Your task to perform on an android device: Search for Mexican restaurants on Maps Image 0: 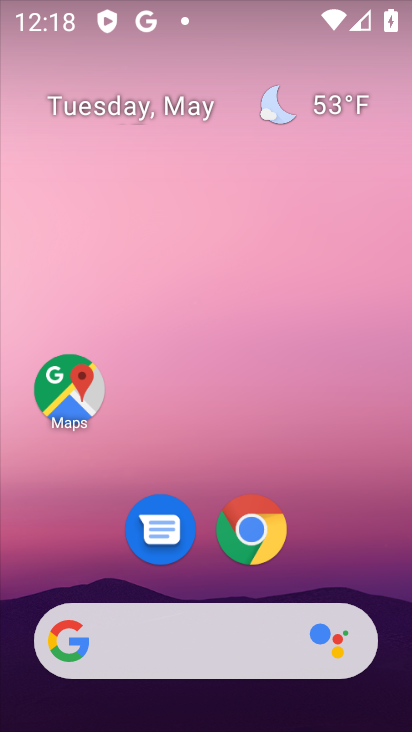
Step 0: drag from (240, 715) to (242, 292)
Your task to perform on an android device: Search for Mexican restaurants on Maps Image 1: 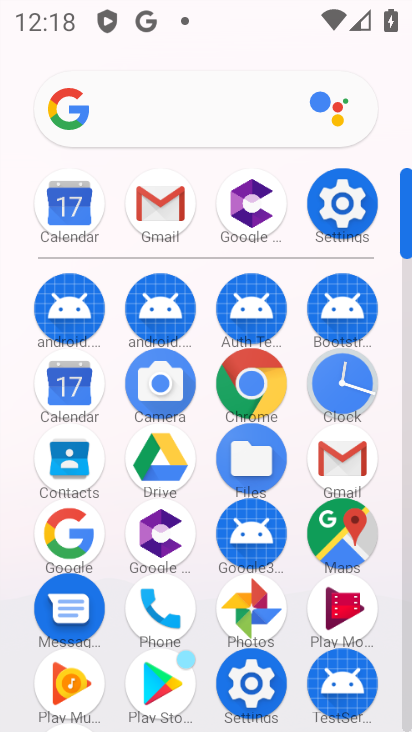
Step 1: click (327, 519)
Your task to perform on an android device: Search for Mexican restaurants on Maps Image 2: 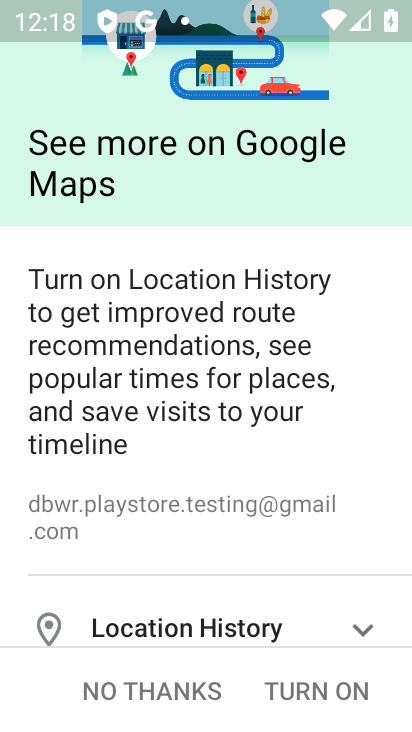
Step 2: click (171, 689)
Your task to perform on an android device: Search for Mexican restaurants on Maps Image 3: 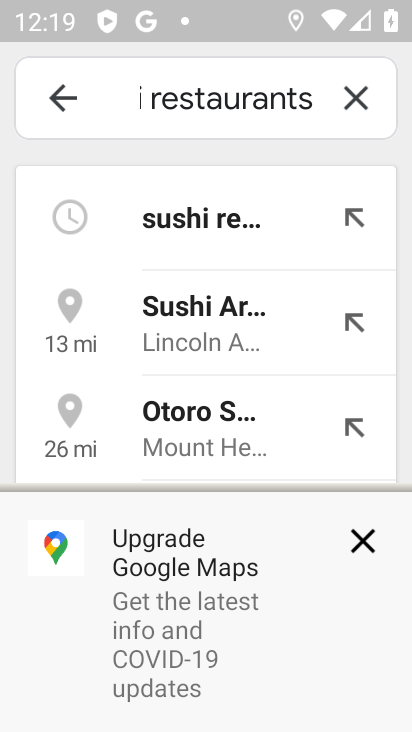
Step 3: click (349, 93)
Your task to perform on an android device: Search for Mexican restaurants on Maps Image 4: 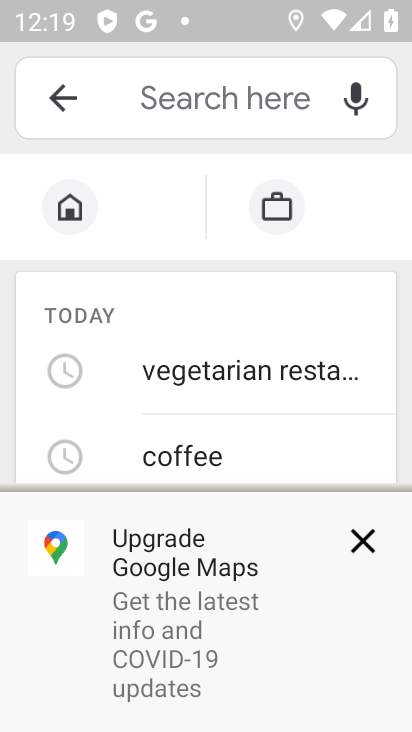
Step 4: click (161, 96)
Your task to perform on an android device: Search for Mexican restaurants on Maps Image 5: 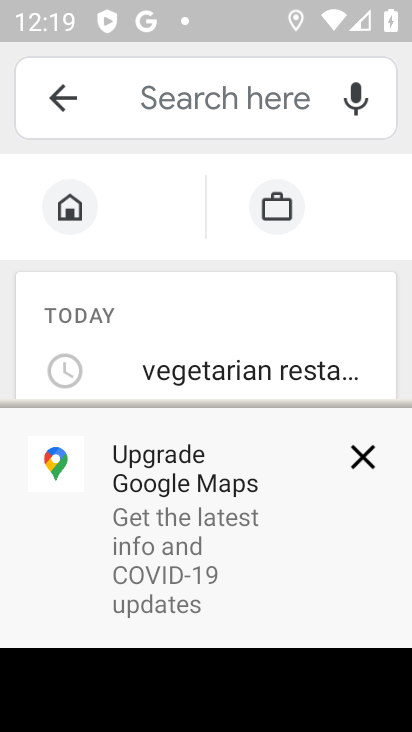
Step 5: type "Mexican restaurants"
Your task to perform on an android device: Search for Mexican restaurants on Maps Image 6: 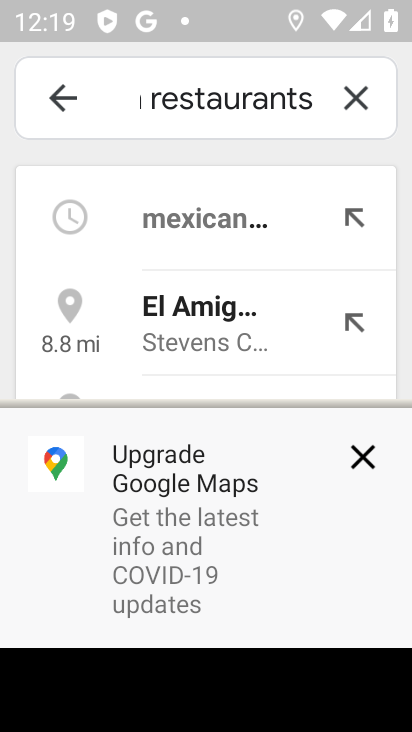
Step 6: click (231, 210)
Your task to perform on an android device: Search for Mexican restaurants on Maps Image 7: 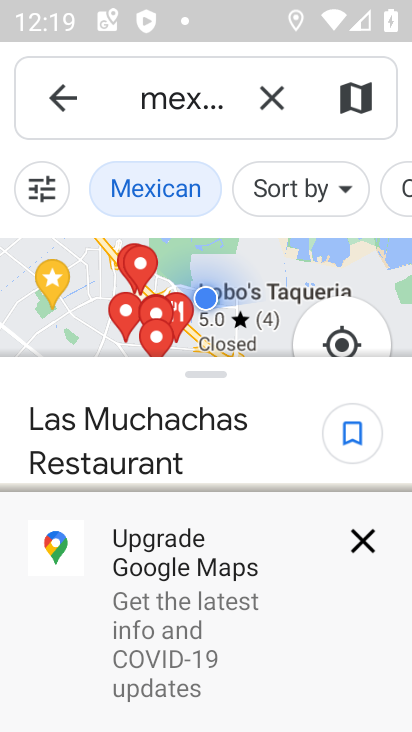
Step 7: task complete